Your task to perform on an android device: Open the phone app and click the voicemail tab. Image 0: 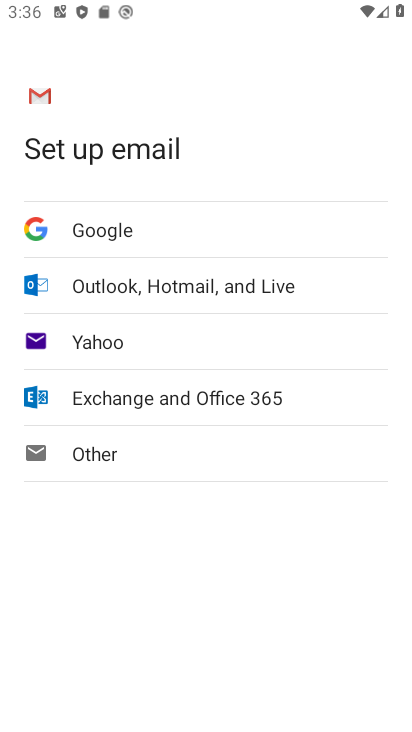
Step 0: press back button
Your task to perform on an android device: Open the phone app and click the voicemail tab. Image 1: 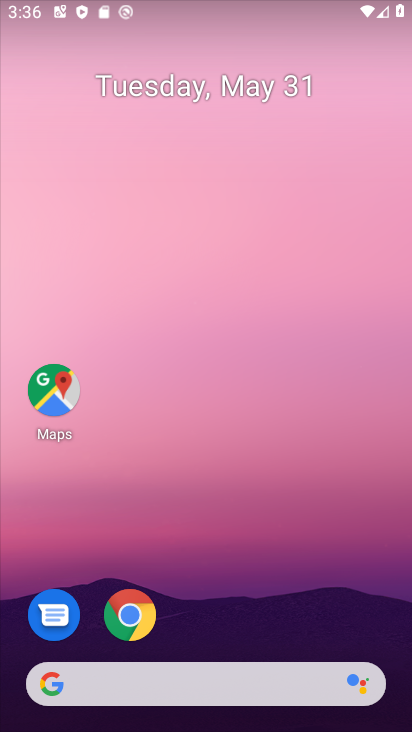
Step 1: drag from (247, 657) to (129, 37)
Your task to perform on an android device: Open the phone app and click the voicemail tab. Image 2: 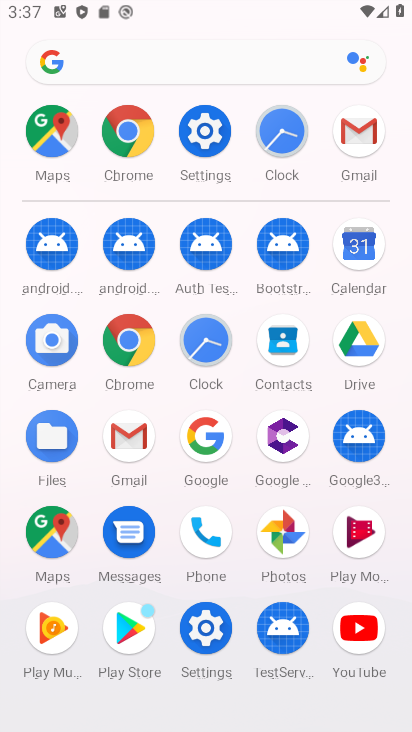
Step 2: click (200, 536)
Your task to perform on an android device: Open the phone app and click the voicemail tab. Image 3: 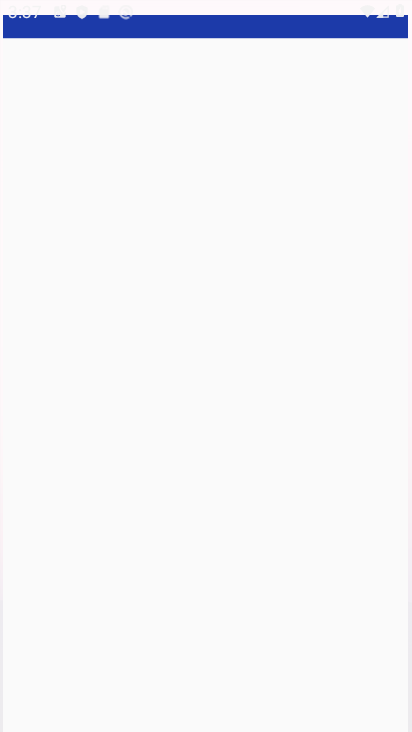
Step 3: click (202, 537)
Your task to perform on an android device: Open the phone app and click the voicemail tab. Image 4: 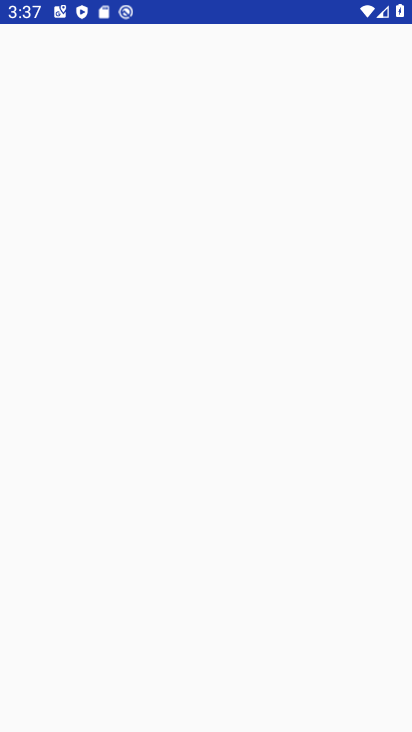
Step 4: click (207, 539)
Your task to perform on an android device: Open the phone app and click the voicemail tab. Image 5: 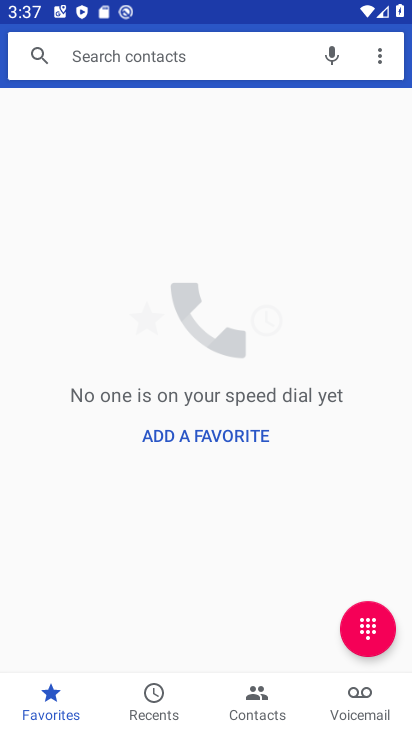
Step 5: click (354, 701)
Your task to perform on an android device: Open the phone app and click the voicemail tab. Image 6: 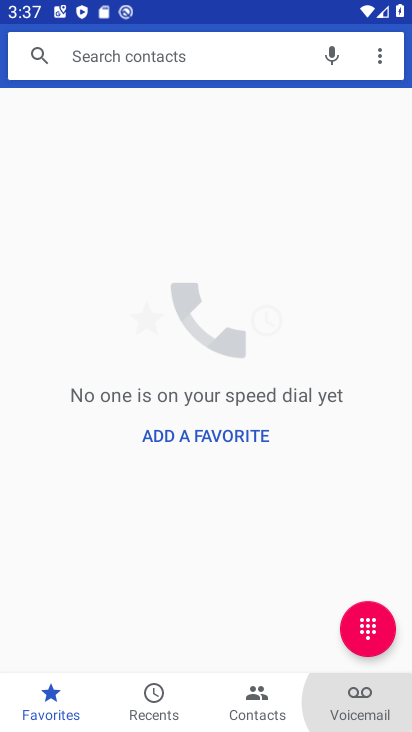
Step 6: click (354, 701)
Your task to perform on an android device: Open the phone app and click the voicemail tab. Image 7: 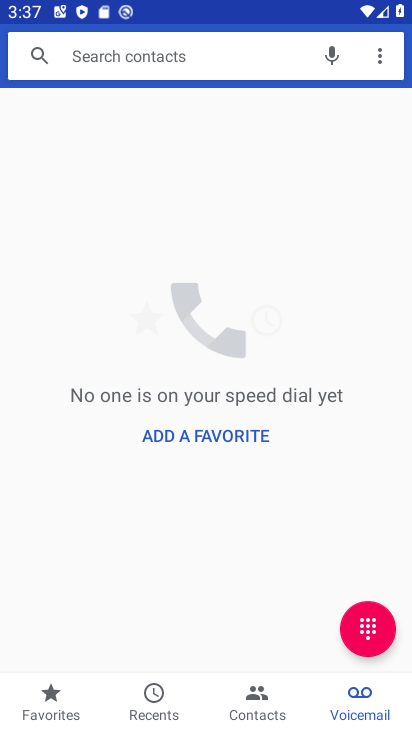
Step 7: click (355, 702)
Your task to perform on an android device: Open the phone app and click the voicemail tab. Image 8: 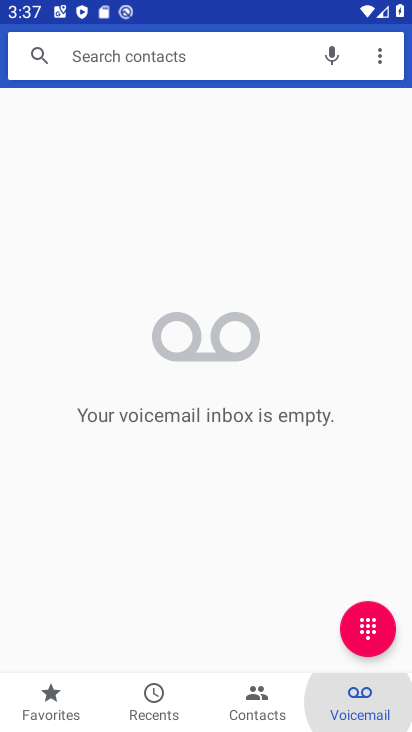
Step 8: click (355, 702)
Your task to perform on an android device: Open the phone app and click the voicemail tab. Image 9: 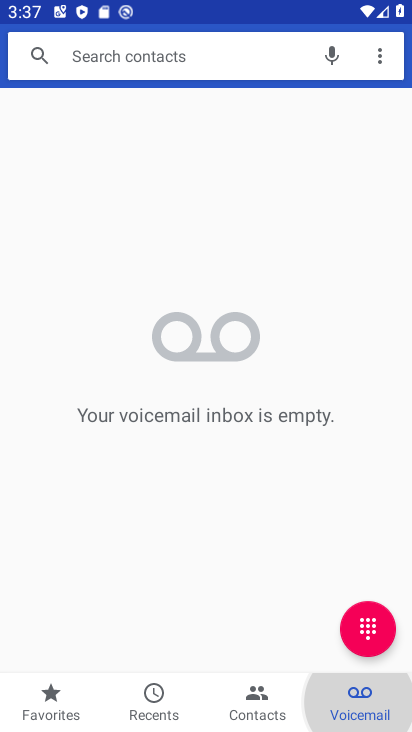
Step 9: click (357, 702)
Your task to perform on an android device: Open the phone app and click the voicemail tab. Image 10: 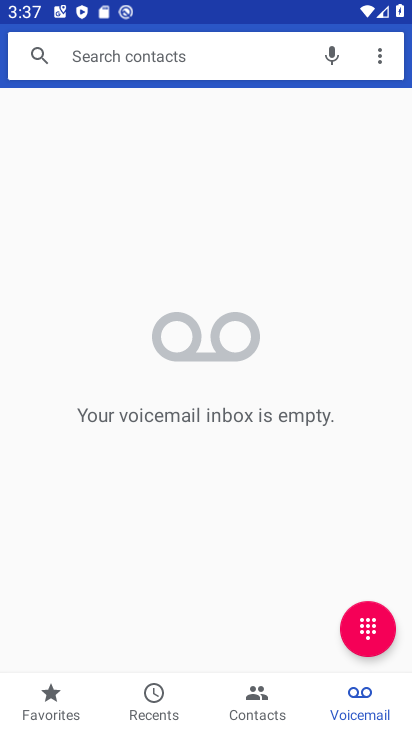
Step 10: click (354, 682)
Your task to perform on an android device: Open the phone app and click the voicemail tab. Image 11: 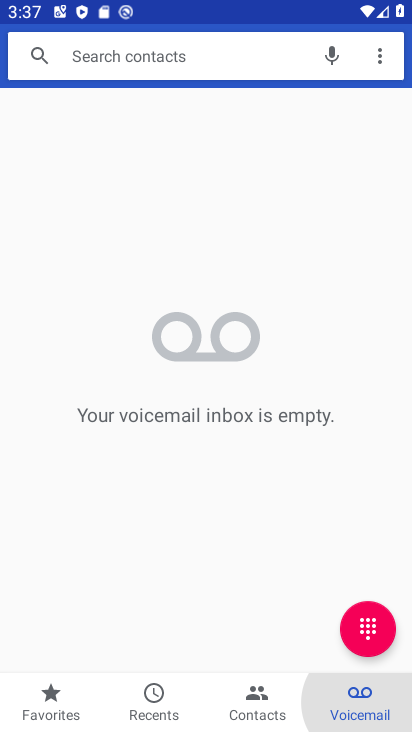
Step 11: click (356, 685)
Your task to perform on an android device: Open the phone app and click the voicemail tab. Image 12: 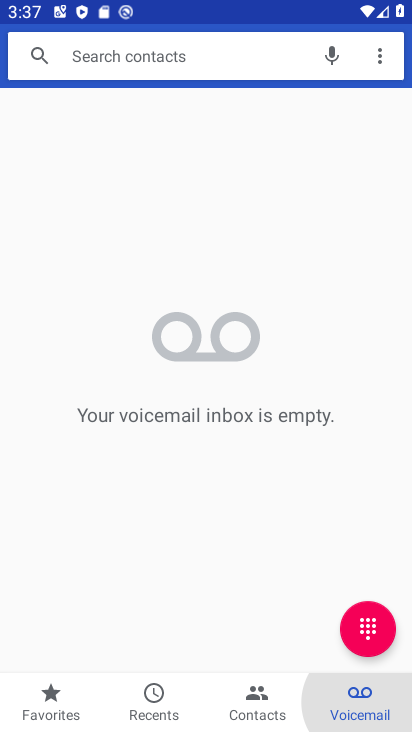
Step 12: click (355, 686)
Your task to perform on an android device: Open the phone app and click the voicemail tab. Image 13: 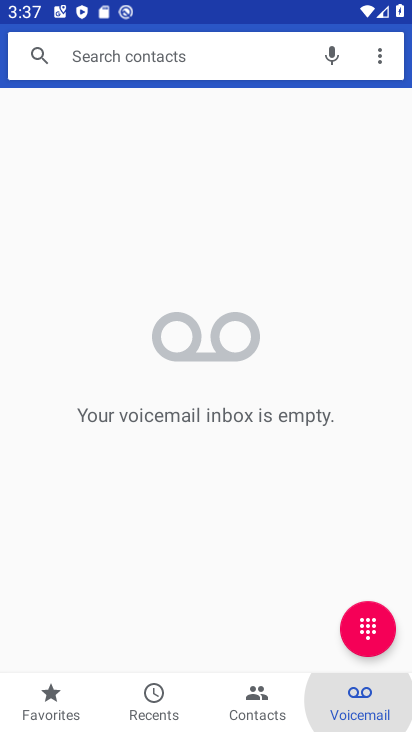
Step 13: click (353, 689)
Your task to perform on an android device: Open the phone app and click the voicemail tab. Image 14: 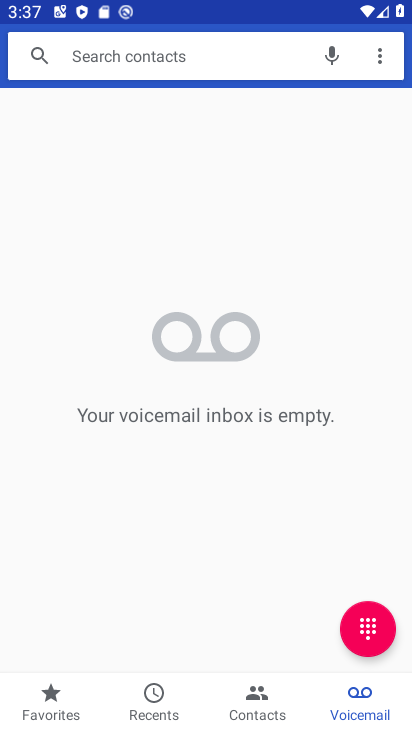
Step 14: task complete